Your task to perform on an android device: What's the weather going to be tomorrow? Image 0: 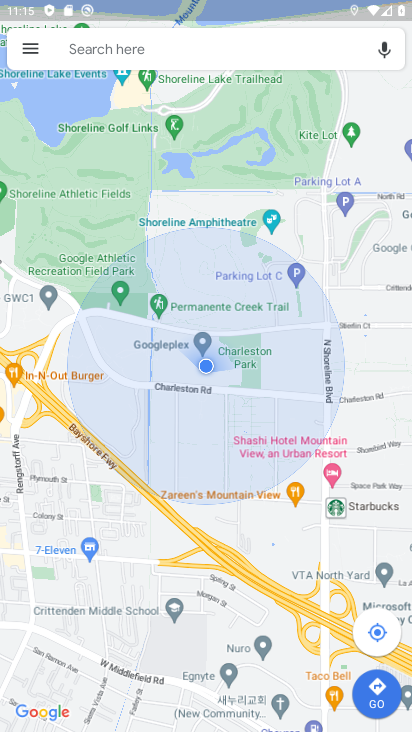
Step 0: press home button
Your task to perform on an android device: What's the weather going to be tomorrow? Image 1: 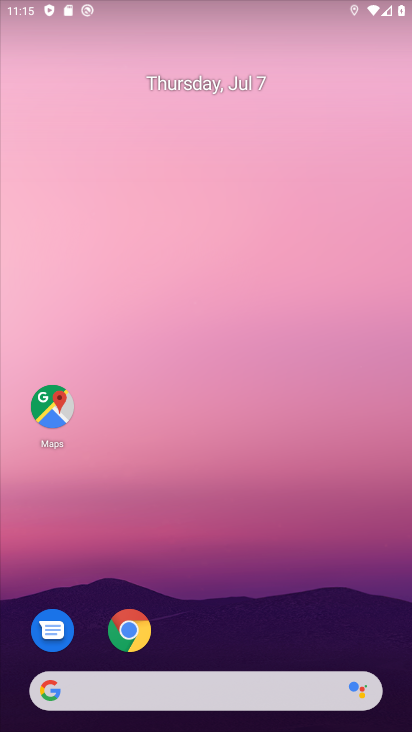
Step 1: drag from (397, 660) to (138, 30)
Your task to perform on an android device: What's the weather going to be tomorrow? Image 2: 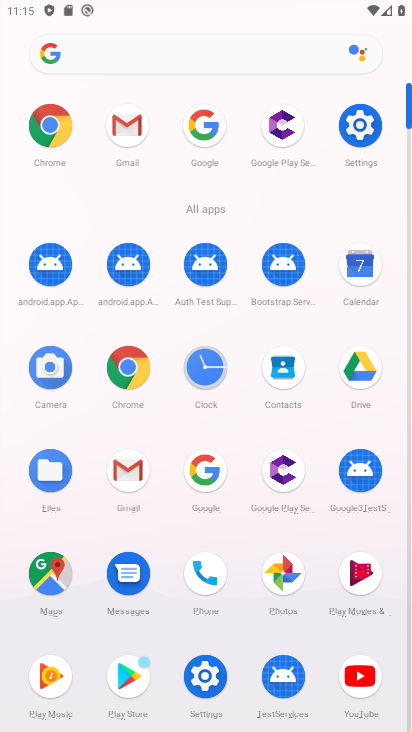
Step 2: click (204, 469)
Your task to perform on an android device: What's the weather going to be tomorrow? Image 3: 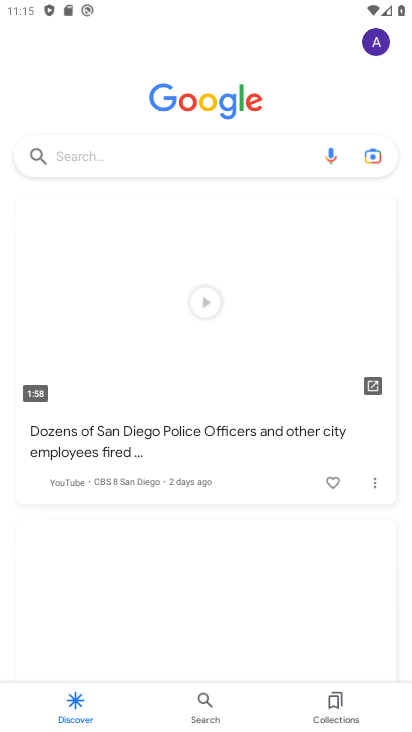
Step 3: click (74, 155)
Your task to perform on an android device: What's the weather going to be tomorrow? Image 4: 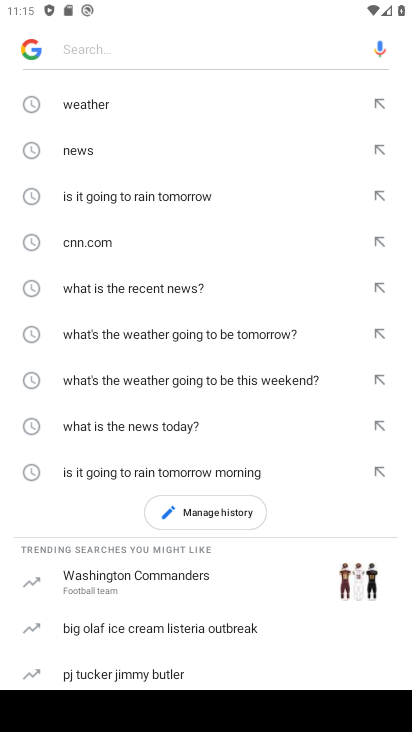
Step 4: type "What's the weather going to be tomorrow?"
Your task to perform on an android device: What's the weather going to be tomorrow? Image 5: 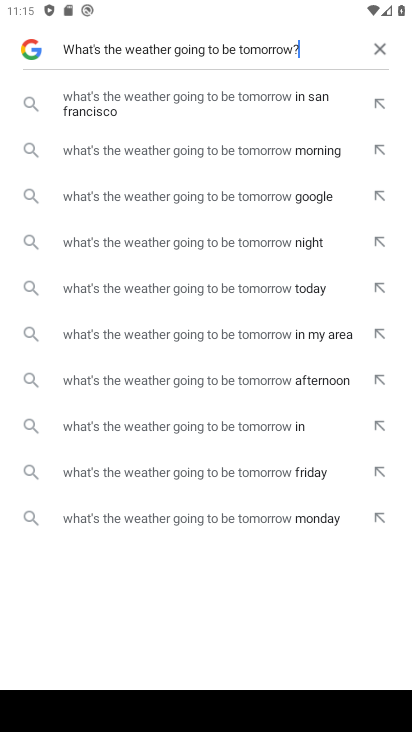
Step 5: click (187, 187)
Your task to perform on an android device: What's the weather going to be tomorrow? Image 6: 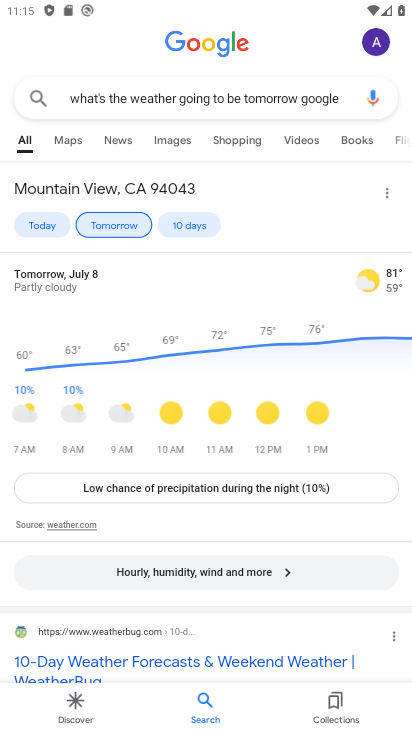
Step 6: task complete